Your task to perform on an android device: check data usage Image 0: 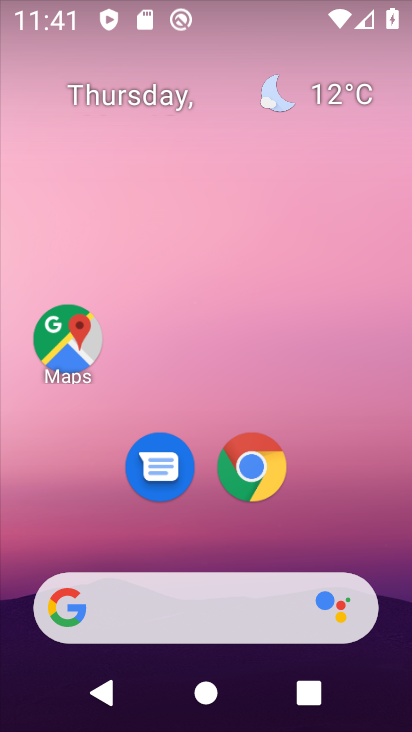
Step 0: drag from (353, 415) to (177, 11)
Your task to perform on an android device: check data usage Image 1: 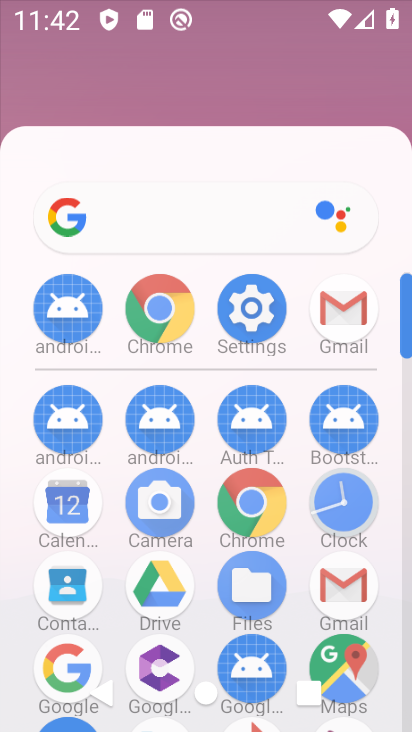
Step 1: drag from (319, 234) to (385, 53)
Your task to perform on an android device: check data usage Image 2: 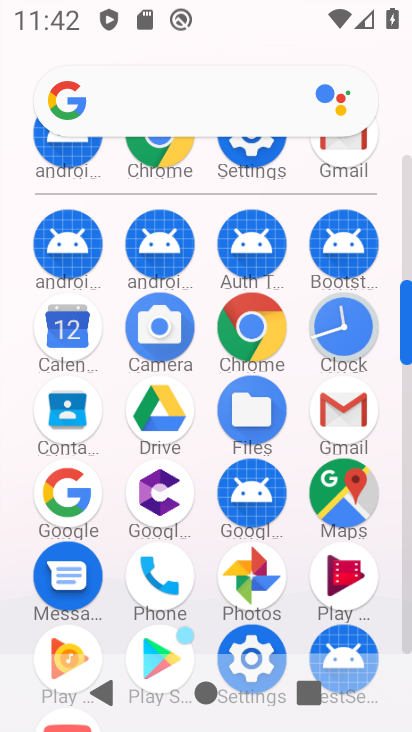
Step 2: click (271, 158)
Your task to perform on an android device: check data usage Image 3: 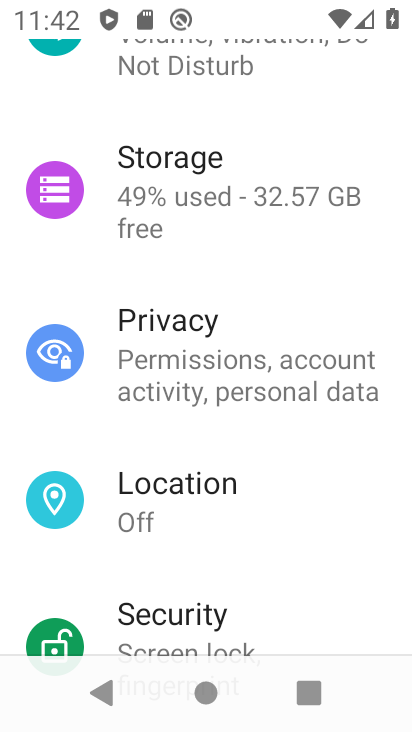
Step 3: drag from (256, 108) to (227, 472)
Your task to perform on an android device: check data usage Image 4: 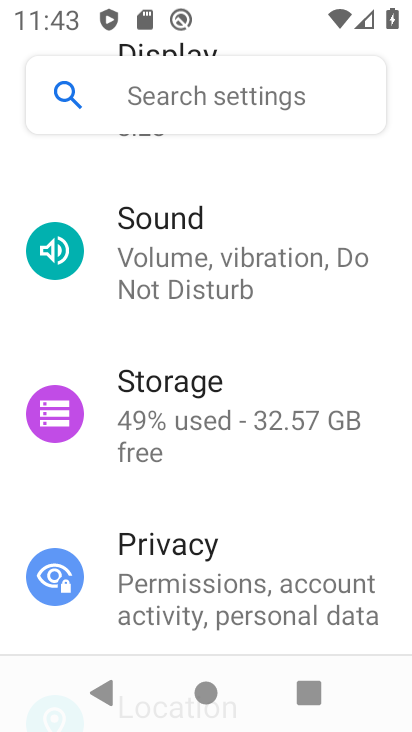
Step 4: drag from (228, 338) to (211, 722)
Your task to perform on an android device: check data usage Image 5: 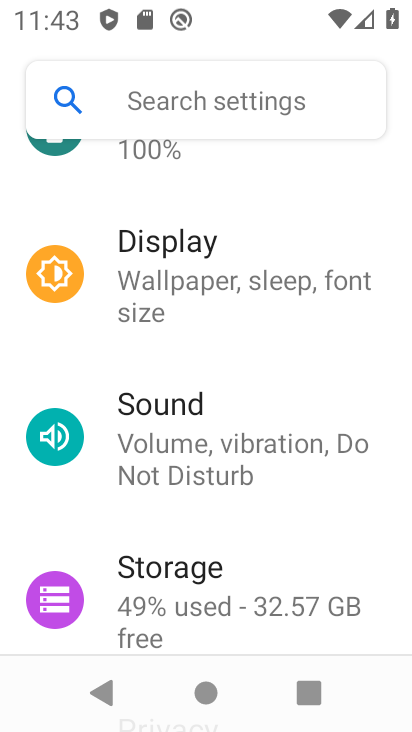
Step 5: drag from (247, 257) to (185, 621)
Your task to perform on an android device: check data usage Image 6: 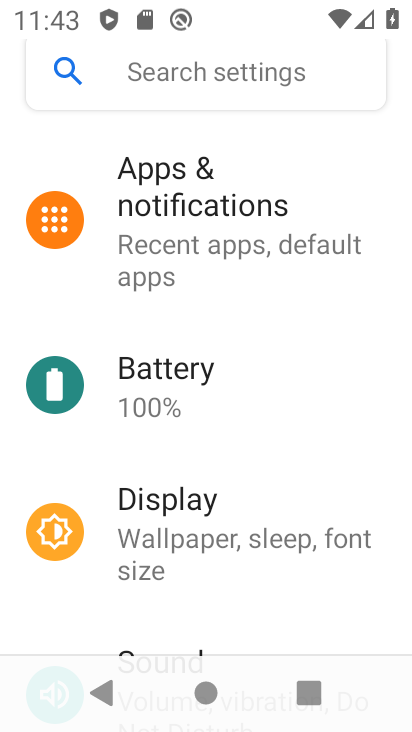
Step 6: drag from (232, 217) to (209, 643)
Your task to perform on an android device: check data usage Image 7: 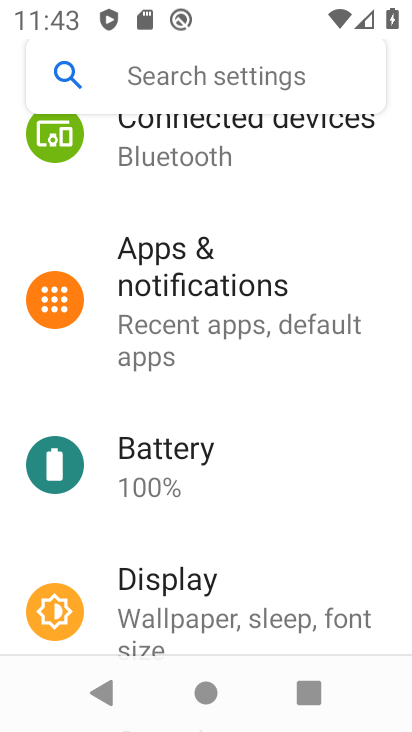
Step 7: drag from (234, 216) to (176, 563)
Your task to perform on an android device: check data usage Image 8: 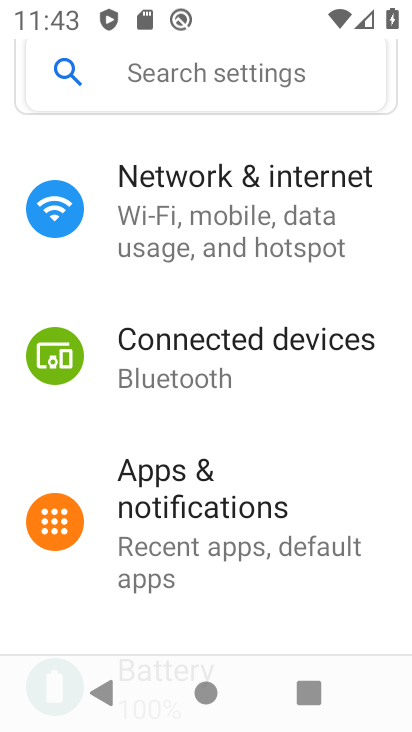
Step 8: click (204, 242)
Your task to perform on an android device: check data usage Image 9: 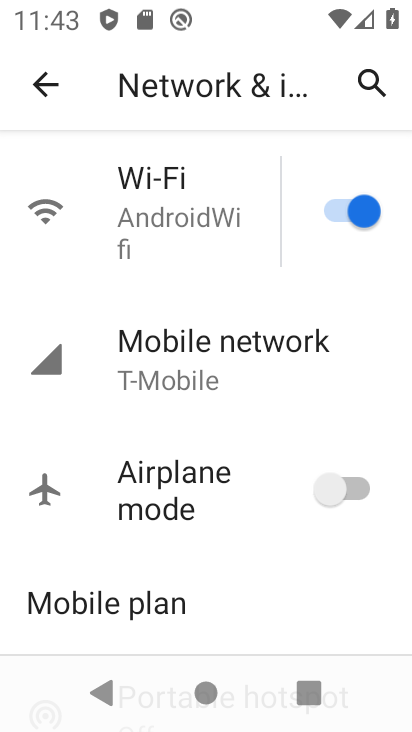
Step 9: click (136, 364)
Your task to perform on an android device: check data usage Image 10: 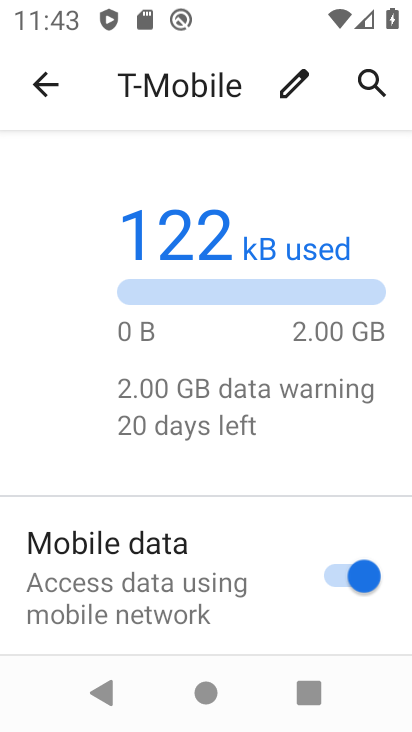
Step 10: task complete